Your task to perform on an android device: Go to wifi settings Image 0: 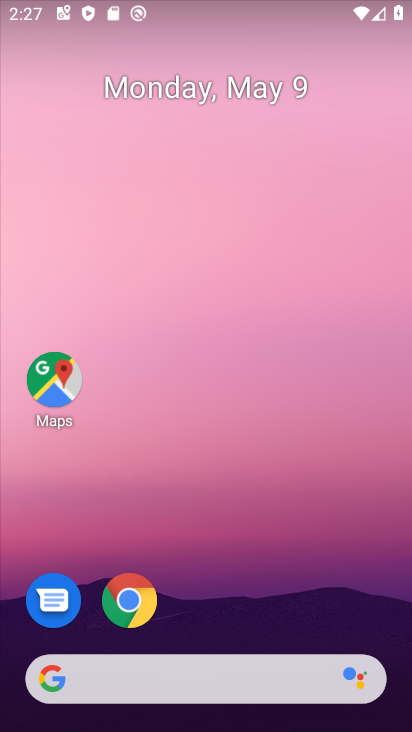
Step 0: drag from (152, 11) to (204, 635)
Your task to perform on an android device: Go to wifi settings Image 1: 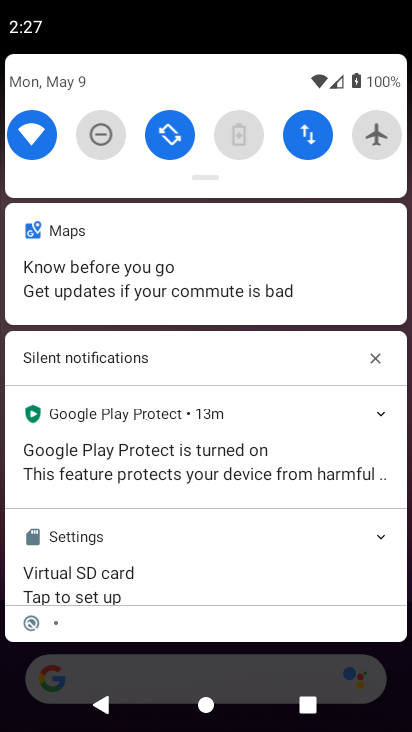
Step 1: click (43, 134)
Your task to perform on an android device: Go to wifi settings Image 2: 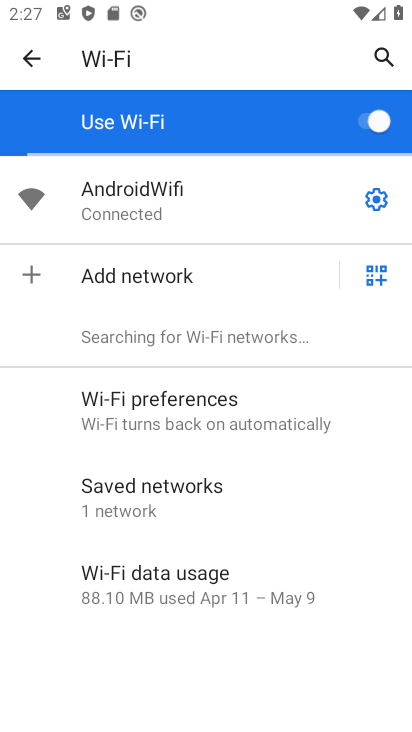
Step 2: task complete